Your task to perform on an android device: Do I have any events this weekend? Image 0: 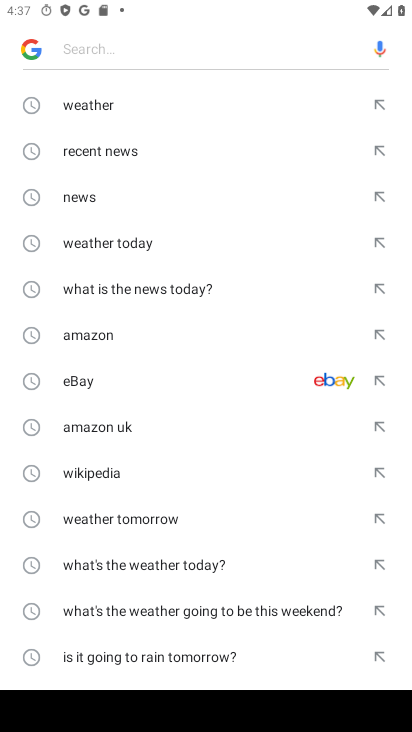
Step 0: press home button
Your task to perform on an android device: Do I have any events this weekend? Image 1: 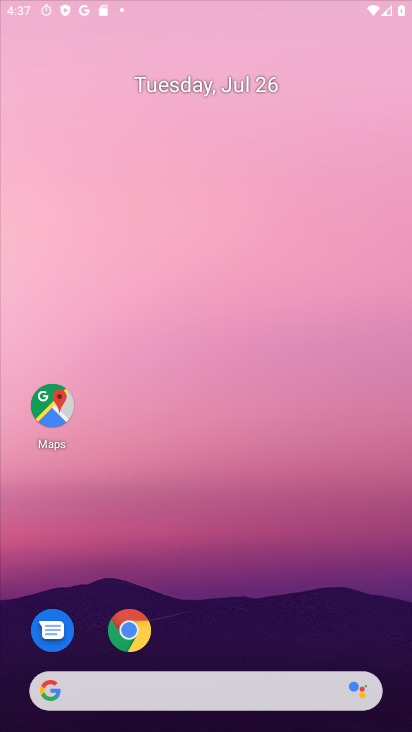
Step 1: click (222, 9)
Your task to perform on an android device: Do I have any events this weekend? Image 2: 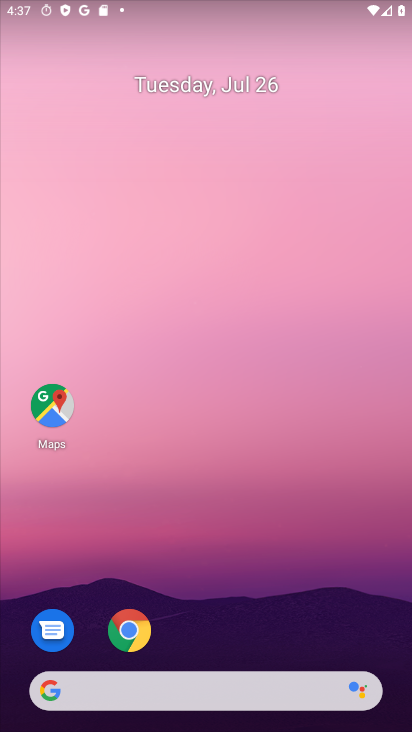
Step 2: drag from (329, 593) to (310, 84)
Your task to perform on an android device: Do I have any events this weekend? Image 3: 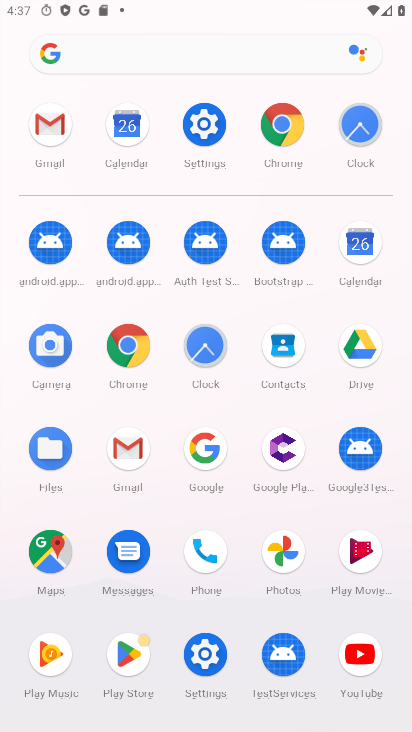
Step 3: click (124, 135)
Your task to perform on an android device: Do I have any events this weekend? Image 4: 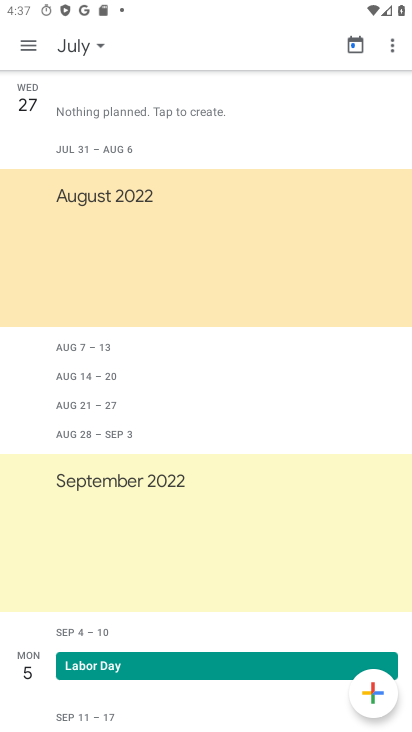
Step 4: click (34, 45)
Your task to perform on an android device: Do I have any events this weekend? Image 5: 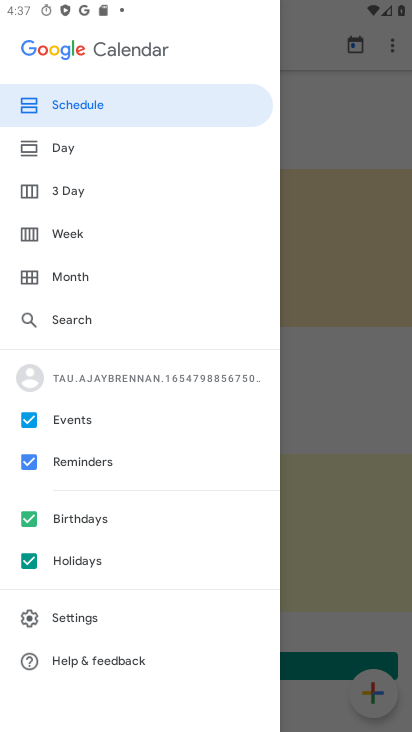
Step 5: click (68, 237)
Your task to perform on an android device: Do I have any events this weekend? Image 6: 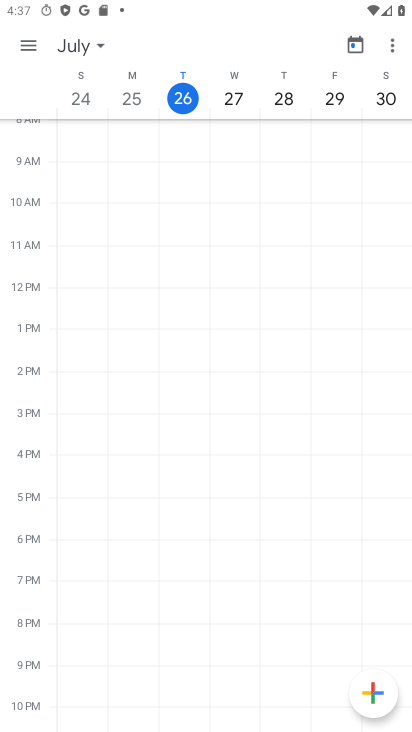
Step 6: click (382, 88)
Your task to perform on an android device: Do I have any events this weekend? Image 7: 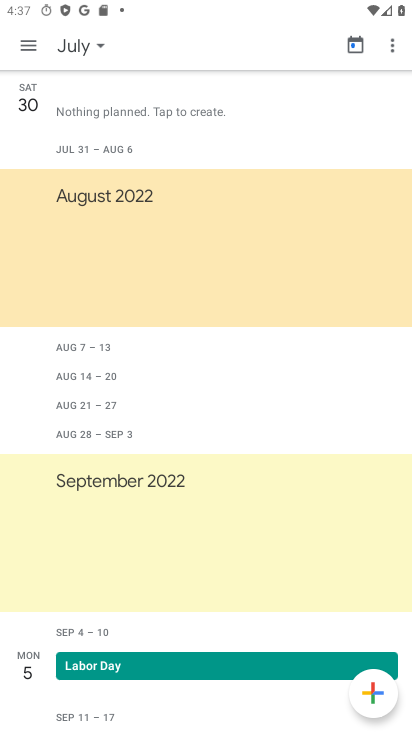
Step 7: task complete